Your task to perform on an android device: change keyboard looks Image 0: 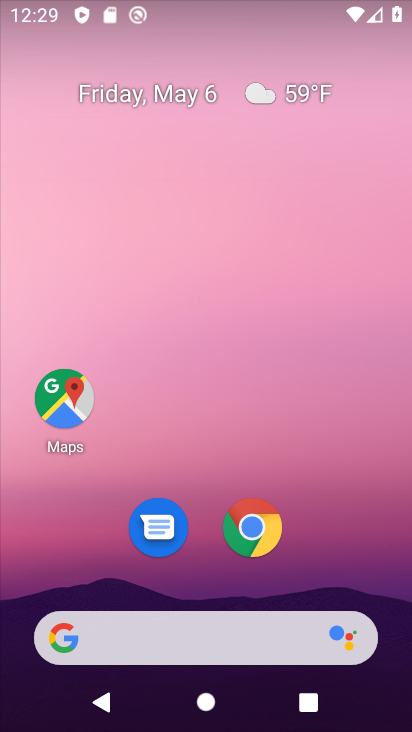
Step 0: drag from (216, 465) to (226, 4)
Your task to perform on an android device: change keyboard looks Image 1: 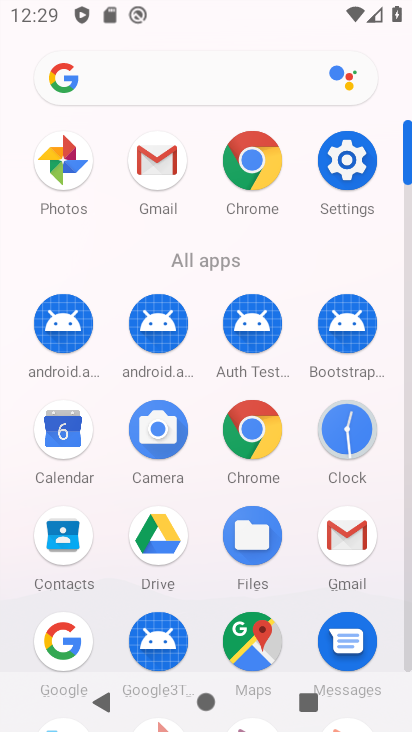
Step 1: click (345, 161)
Your task to perform on an android device: change keyboard looks Image 2: 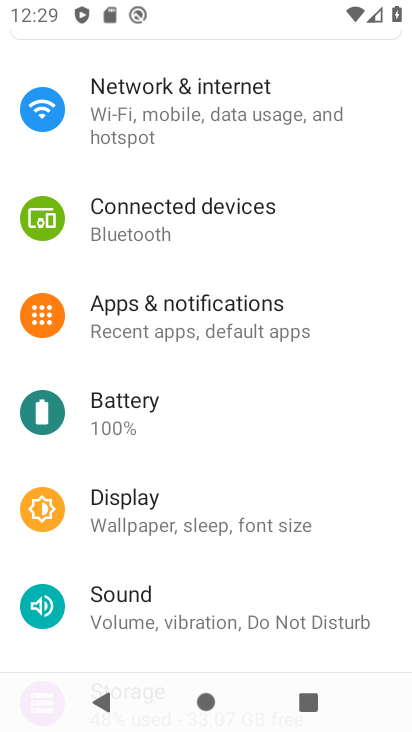
Step 2: drag from (173, 509) to (217, 321)
Your task to perform on an android device: change keyboard looks Image 3: 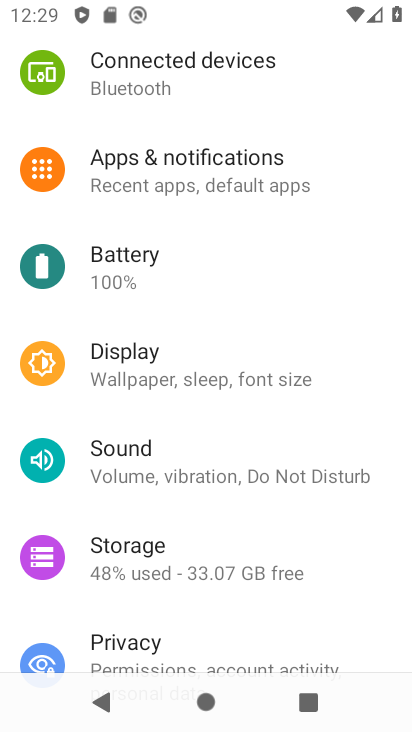
Step 3: drag from (178, 524) to (224, 414)
Your task to perform on an android device: change keyboard looks Image 4: 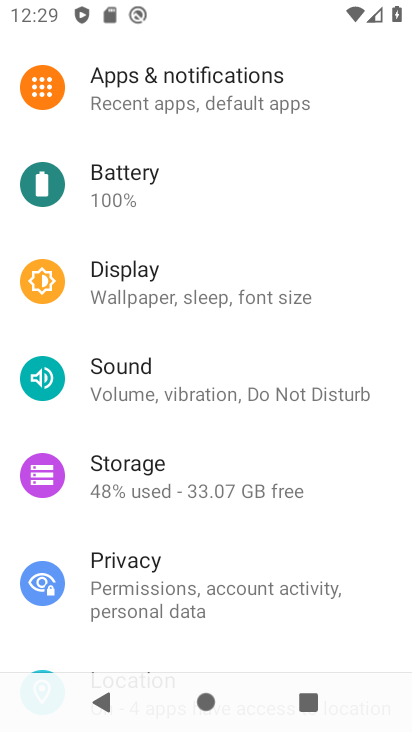
Step 4: drag from (197, 533) to (230, 354)
Your task to perform on an android device: change keyboard looks Image 5: 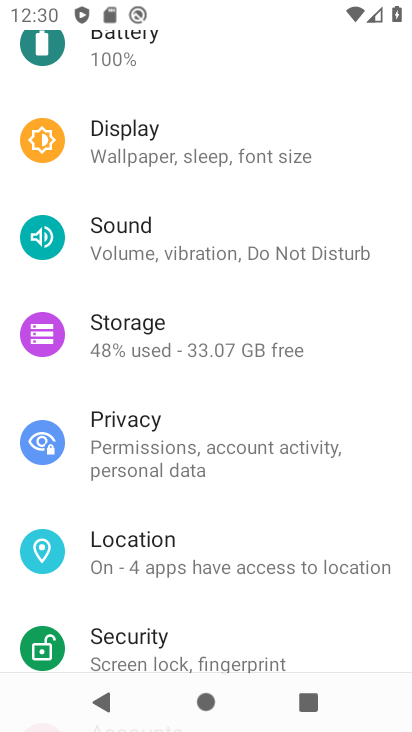
Step 5: drag from (198, 505) to (243, 392)
Your task to perform on an android device: change keyboard looks Image 6: 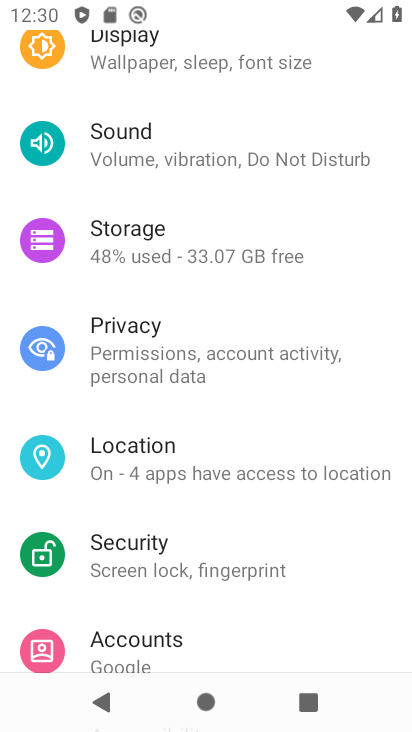
Step 6: drag from (209, 505) to (250, 384)
Your task to perform on an android device: change keyboard looks Image 7: 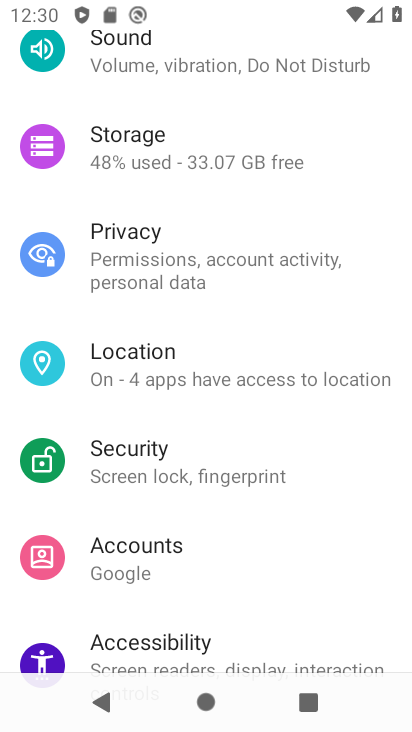
Step 7: drag from (184, 543) to (255, 392)
Your task to perform on an android device: change keyboard looks Image 8: 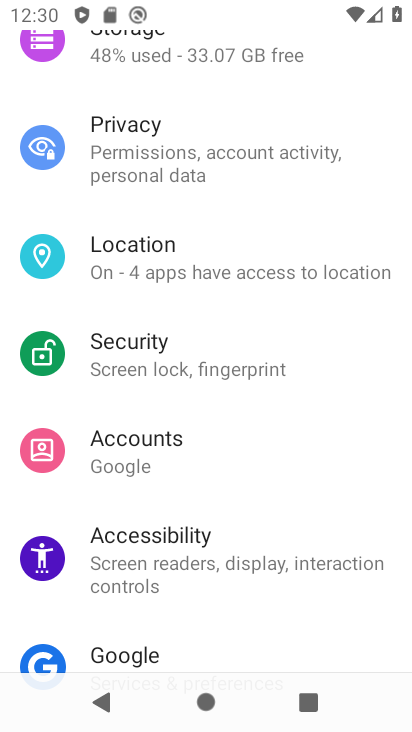
Step 8: drag from (206, 579) to (268, 427)
Your task to perform on an android device: change keyboard looks Image 9: 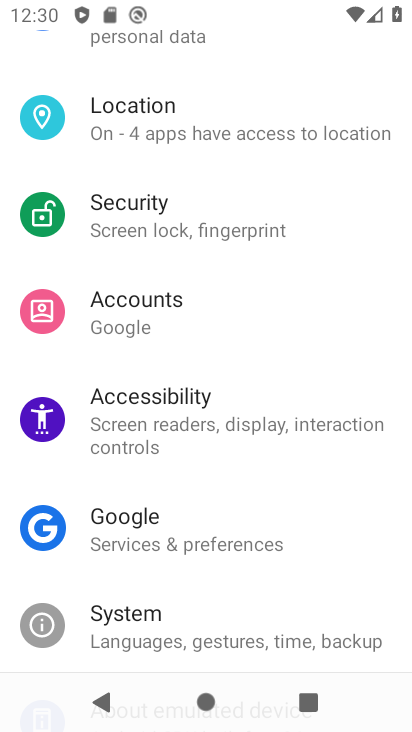
Step 9: drag from (209, 496) to (259, 380)
Your task to perform on an android device: change keyboard looks Image 10: 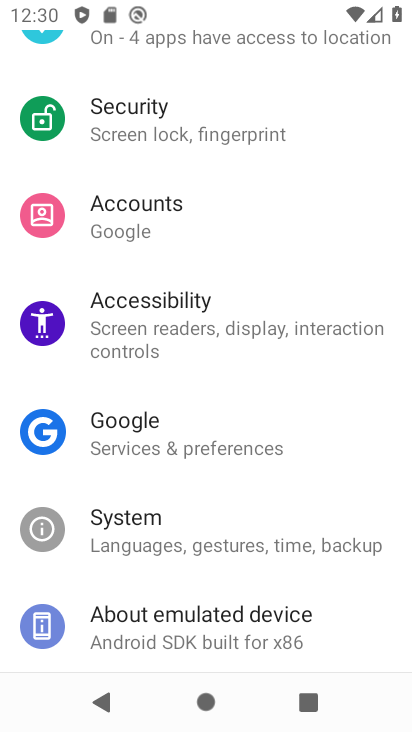
Step 10: click (231, 545)
Your task to perform on an android device: change keyboard looks Image 11: 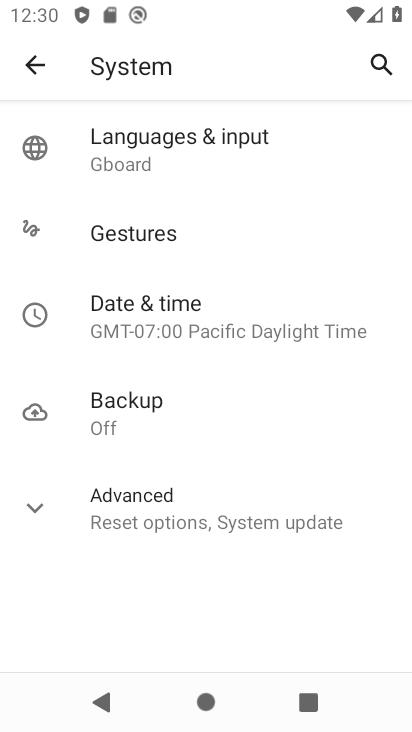
Step 11: click (158, 140)
Your task to perform on an android device: change keyboard looks Image 12: 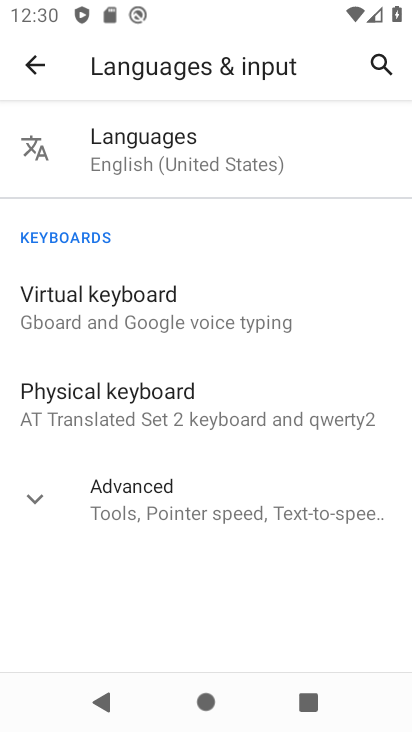
Step 12: click (91, 291)
Your task to perform on an android device: change keyboard looks Image 13: 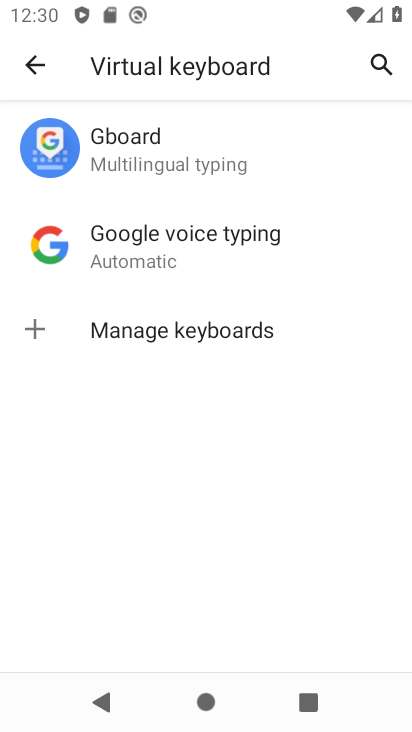
Step 13: click (119, 139)
Your task to perform on an android device: change keyboard looks Image 14: 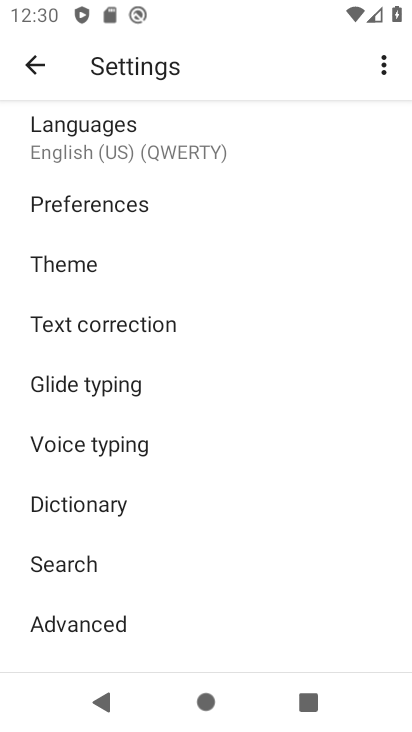
Step 14: click (68, 260)
Your task to perform on an android device: change keyboard looks Image 15: 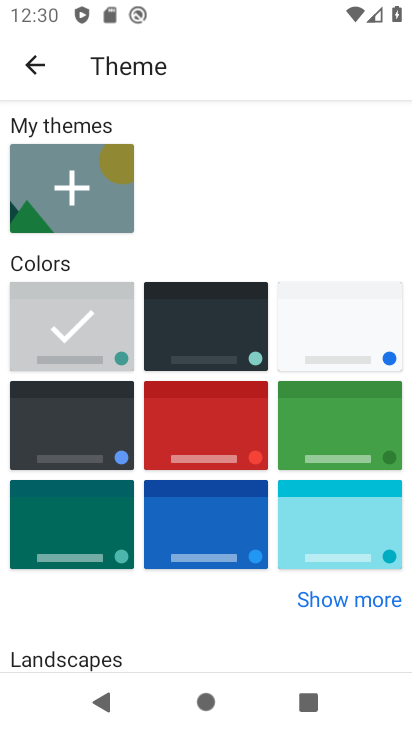
Step 15: click (204, 332)
Your task to perform on an android device: change keyboard looks Image 16: 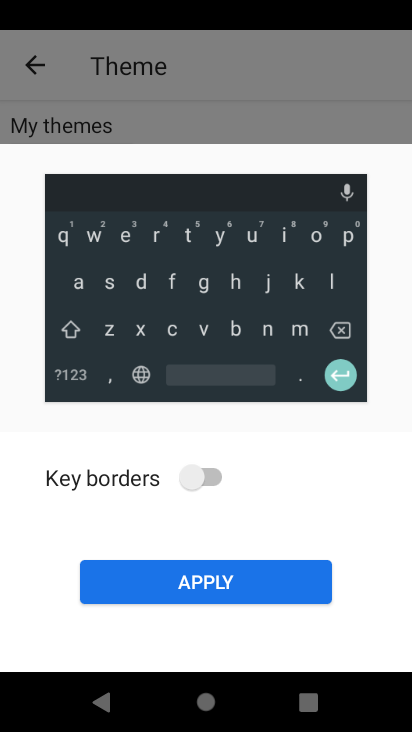
Step 16: click (195, 481)
Your task to perform on an android device: change keyboard looks Image 17: 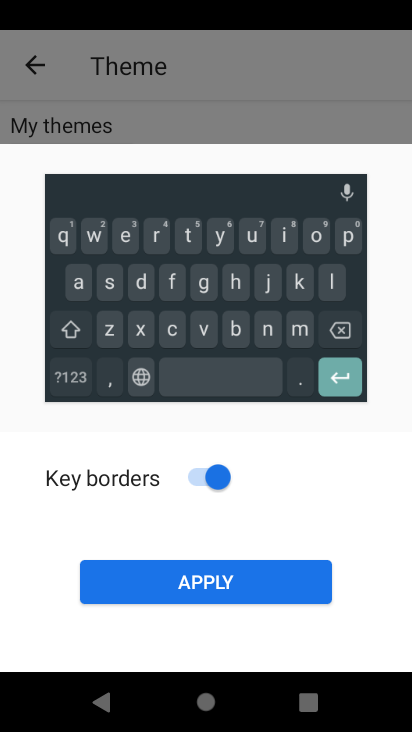
Step 17: click (253, 587)
Your task to perform on an android device: change keyboard looks Image 18: 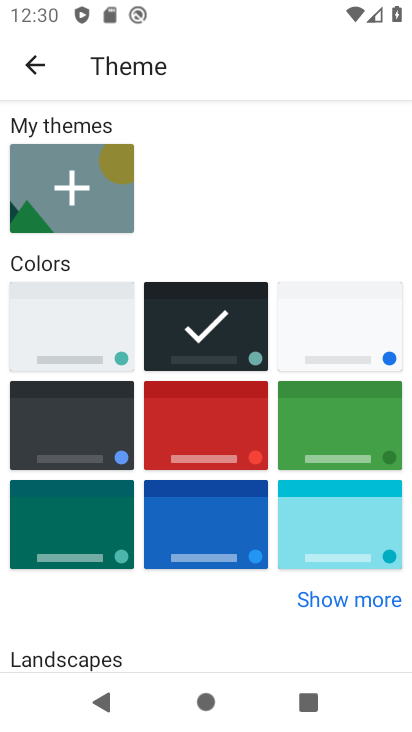
Step 18: task complete